Your task to perform on an android device: What's the weather going to be this weekend? Image 0: 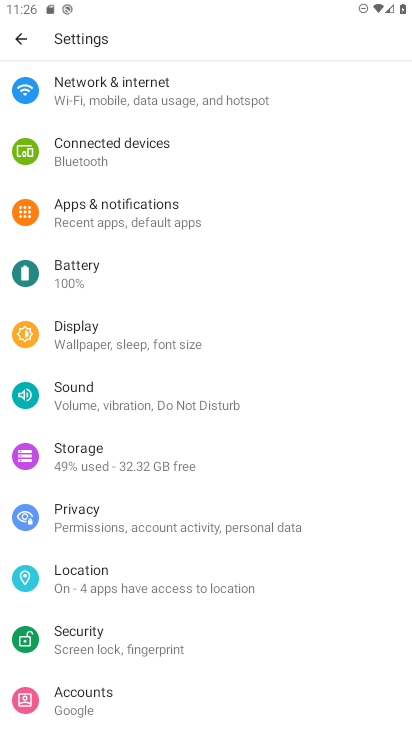
Step 0: press home button
Your task to perform on an android device: What's the weather going to be this weekend? Image 1: 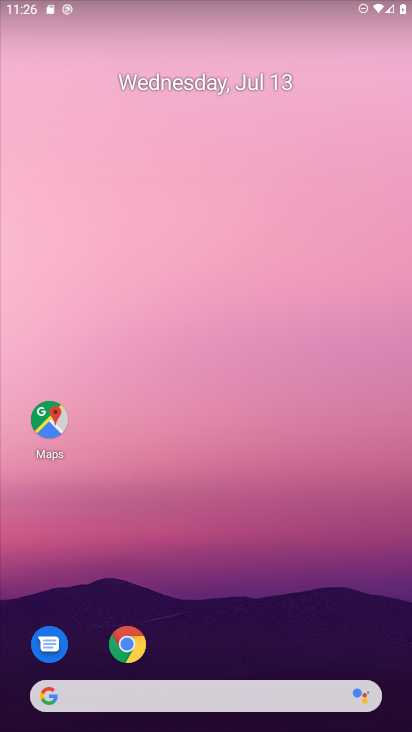
Step 1: click (172, 696)
Your task to perform on an android device: What's the weather going to be this weekend? Image 2: 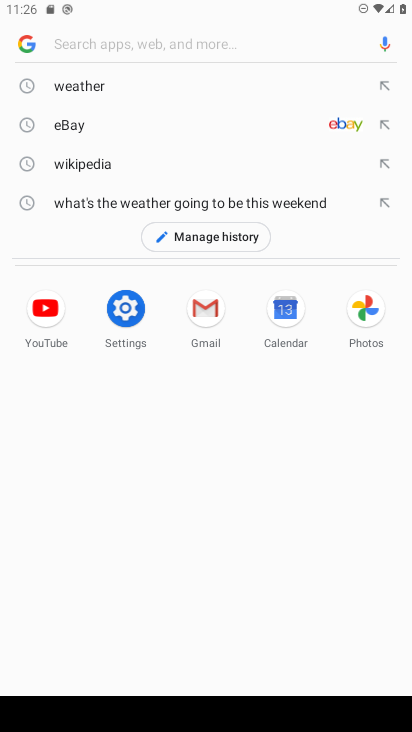
Step 2: click (79, 86)
Your task to perform on an android device: What's the weather going to be this weekend? Image 3: 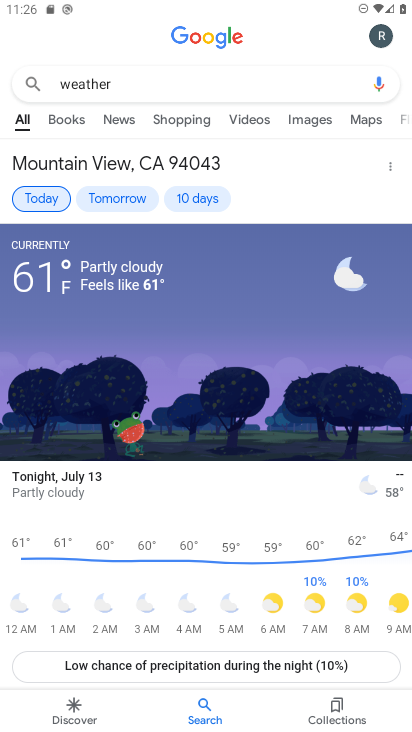
Step 3: click (199, 199)
Your task to perform on an android device: What's the weather going to be this weekend? Image 4: 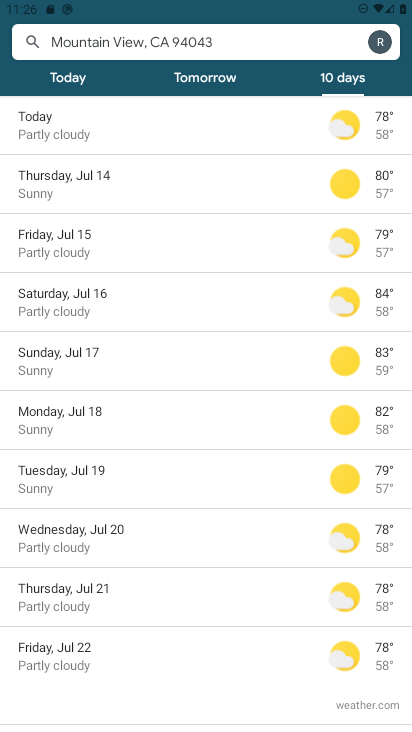
Step 4: task complete